Your task to perform on an android device: open app "File Manager" (install if not already installed) Image 0: 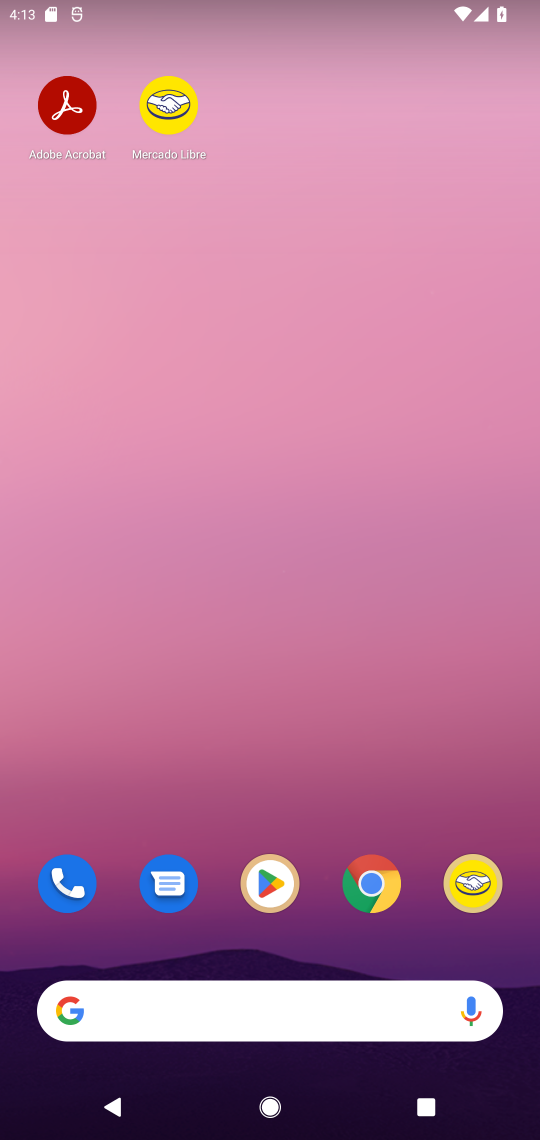
Step 0: drag from (251, 862) to (299, 137)
Your task to perform on an android device: open app "File Manager" (install if not already installed) Image 1: 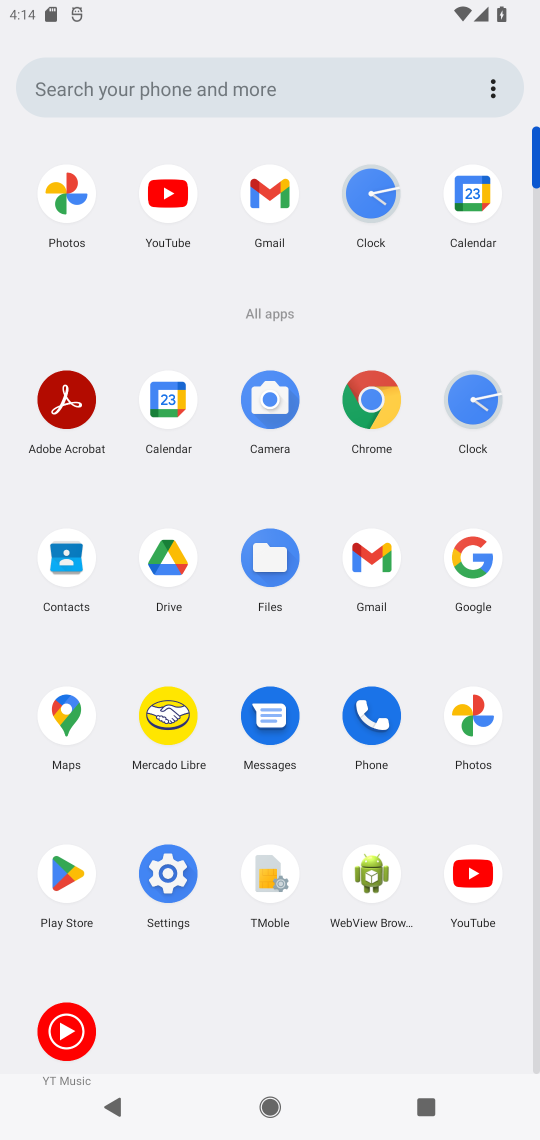
Step 1: click (47, 882)
Your task to perform on an android device: open app "File Manager" (install if not already installed) Image 2: 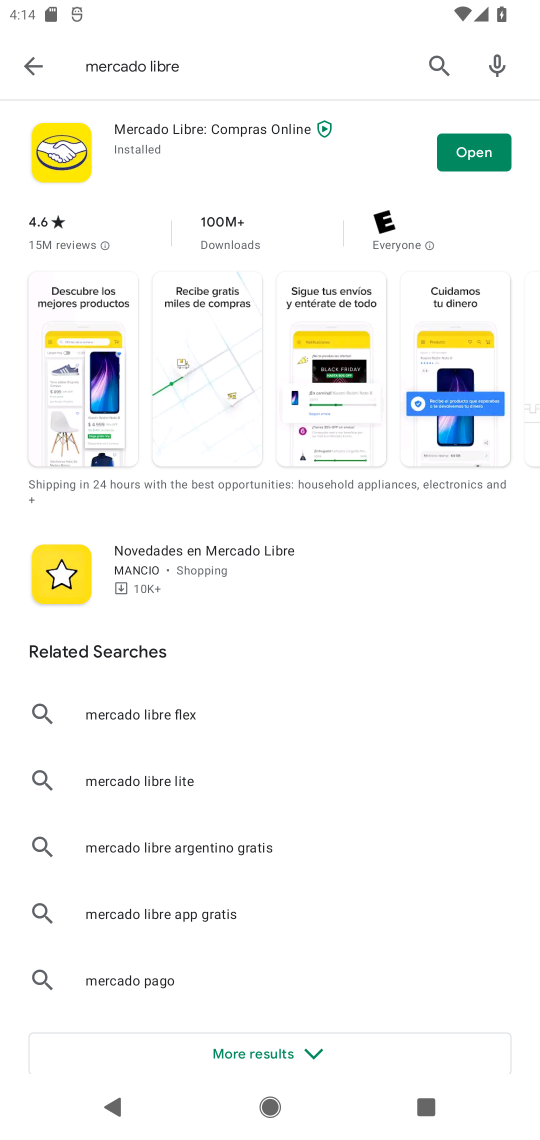
Step 2: click (425, 57)
Your task to perform on an android device: open app "File Manager" (install if not already installed) Image 3: 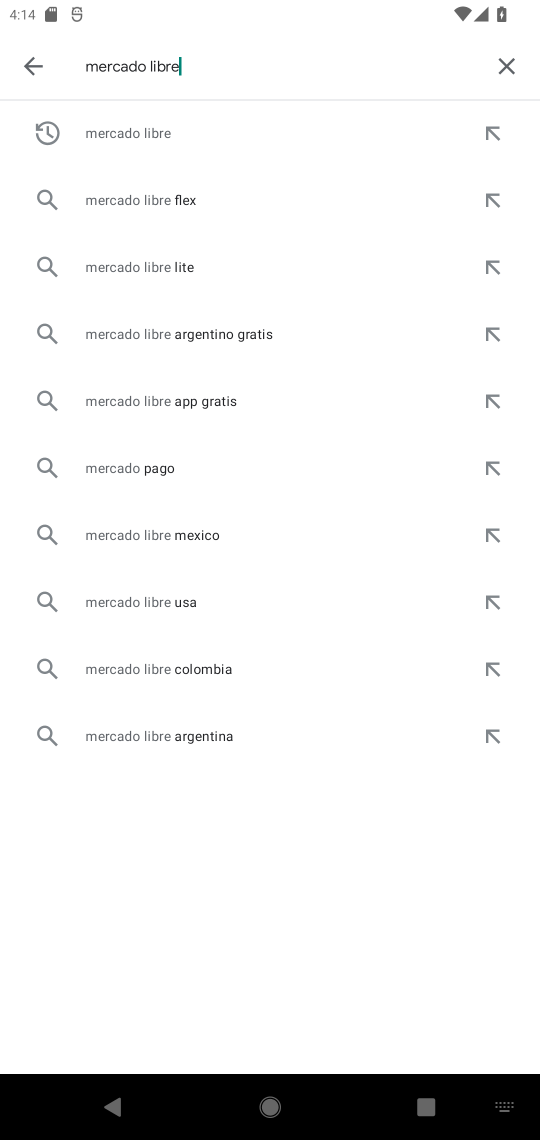
Step 3: click (505, 71)
Your task to perform on an android device: open app "File Manager" (install if not already installed) Image 4: 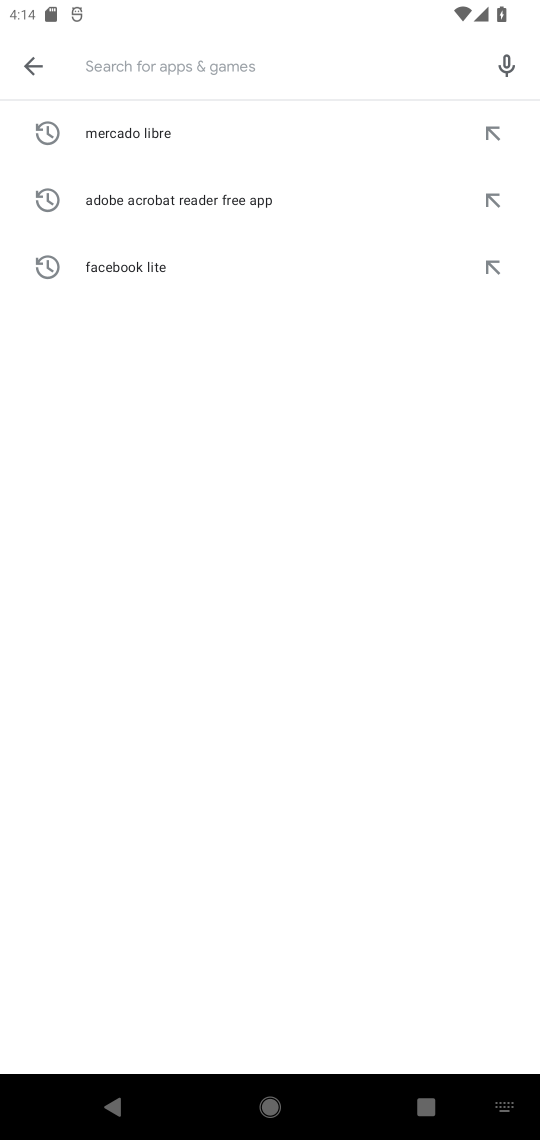
Step 4: type "File Manager"
Your task to perform on an android device: open app "File Manager" (install if not already installed) Image 5: 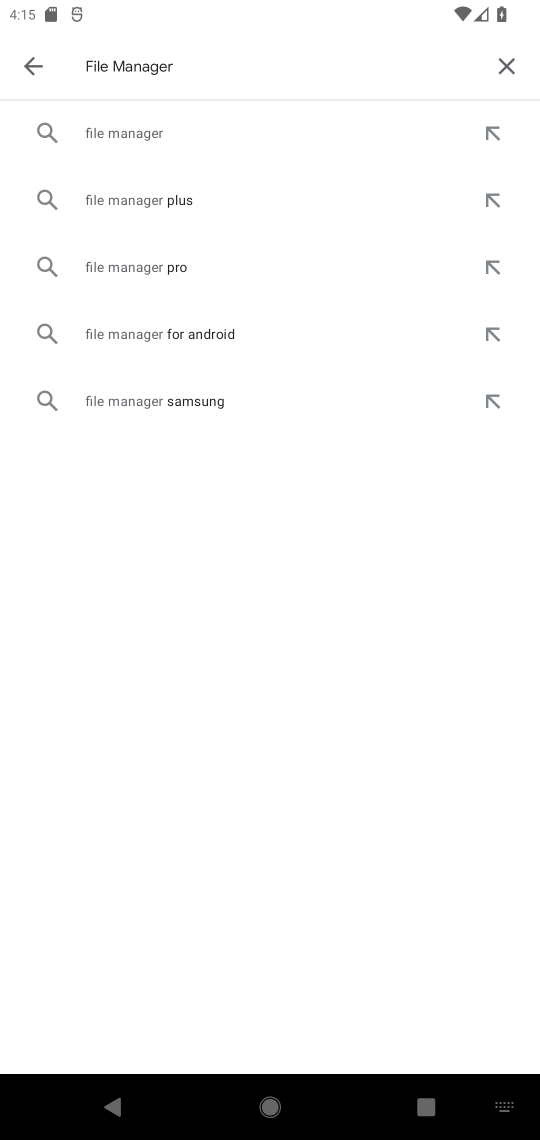
Step 5: click (119, 136)
Your task to perform on an android device: open app "File Manager" (install if not already installed) Image 6: 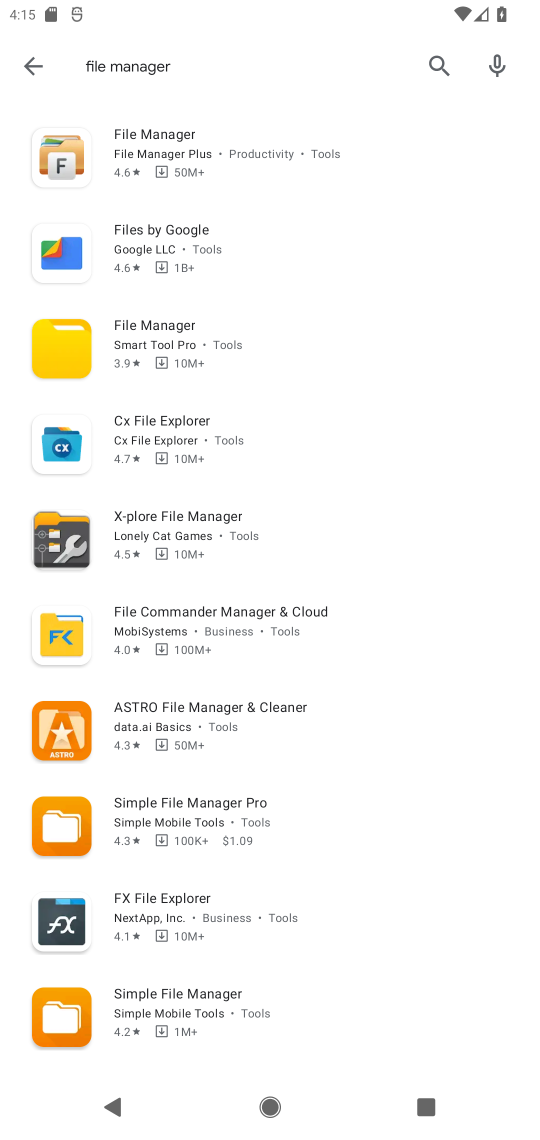
Step 6: click (138, 349)
Your task to perform on an android device: open app "File Manager" (install if not already installed) Image 7: 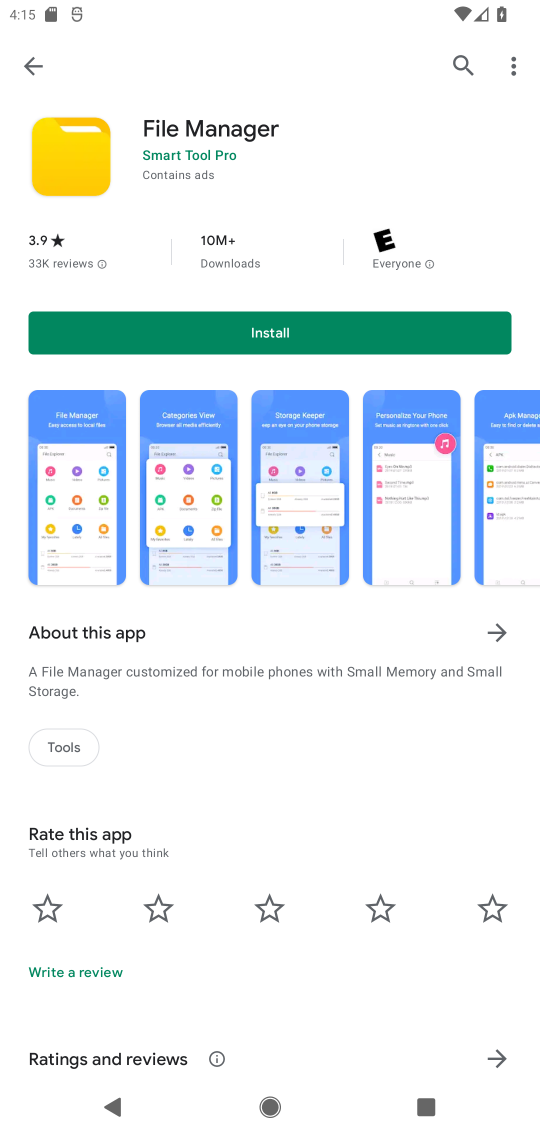
Step 7: click (254, 335)
Your task to perform on an android device: open app "File Manager" (install if not already installed) Image 8: 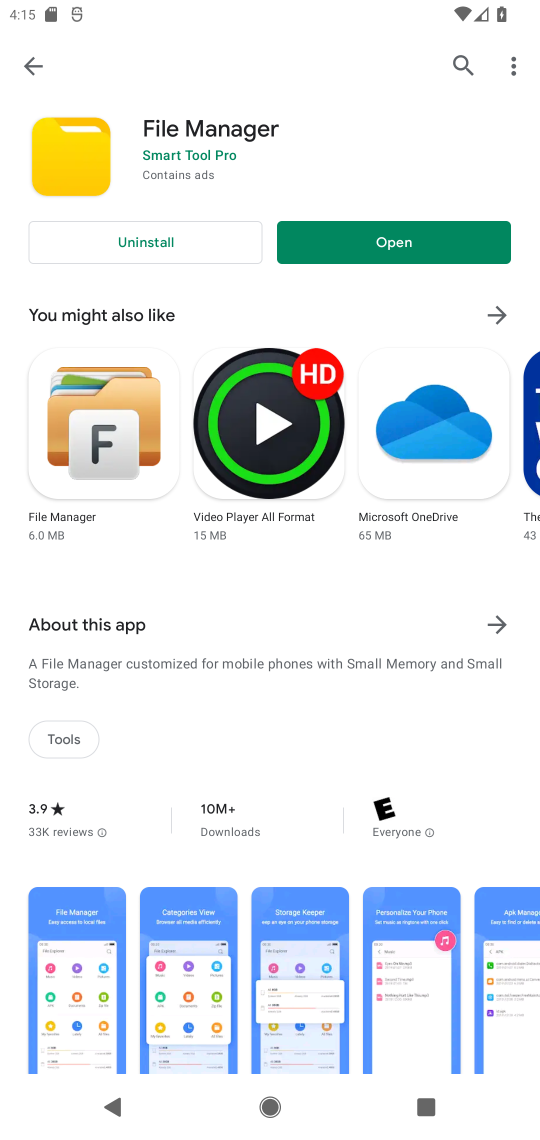
Step 8: click (396, 250)
Your task to perform on an android device: open app "File Manager" (install if not already installed) Image 9: 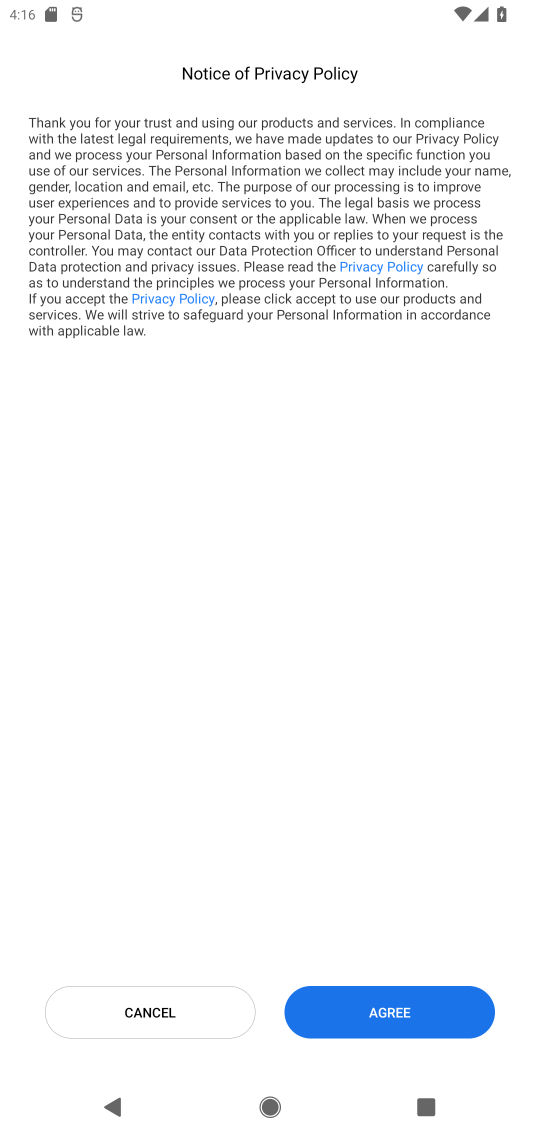
Step 9: task complete